Your task to perform on an android device: Open CNN.com Image 0: 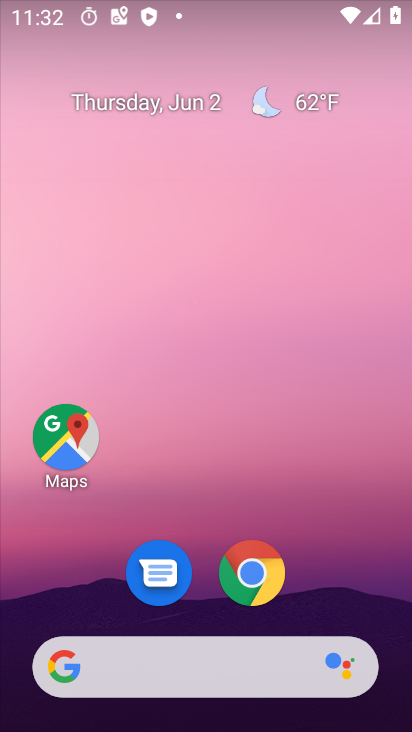
Step 0: drag from (339, 655) to (411, 447)
Your task to perform on an android device: Open CNN.com Image 1: 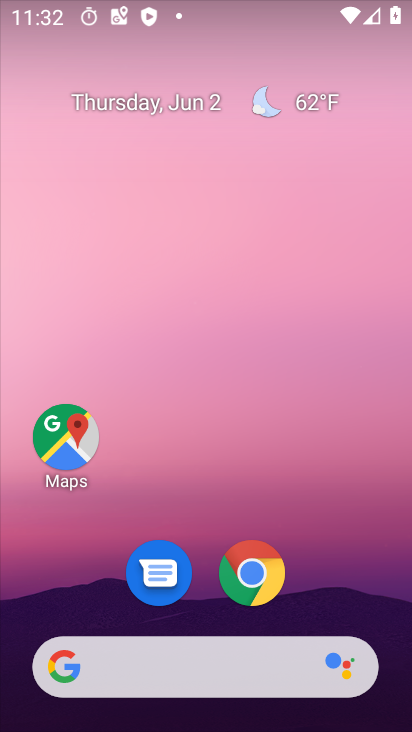
Step 1: drag from (200, 722) to (223, 99)
Your task to perform on an android device: Open CNN.com Image 2: 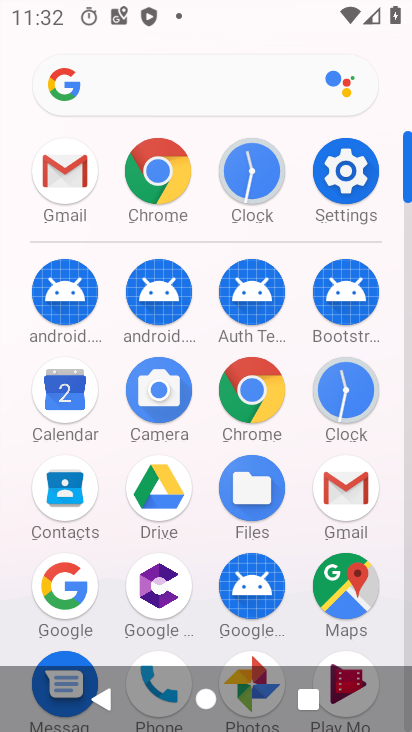
Step 2: click (268, 369)
Your task to perform on an android device: Open CNN.com Image 3: 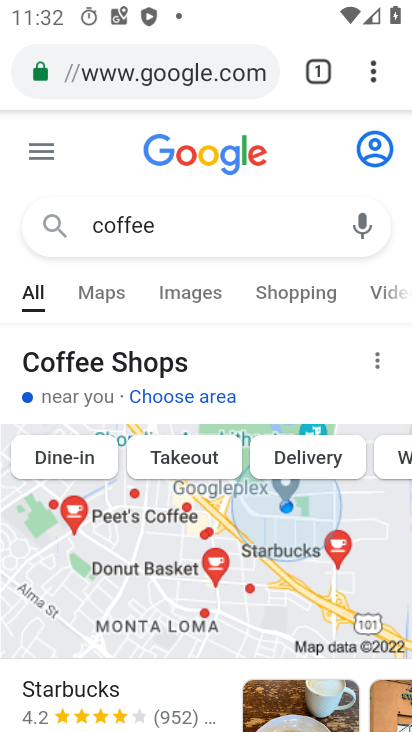
Step 3: click (261, 69)
Your task to perform on an android device: Open CNN.com Image 4: 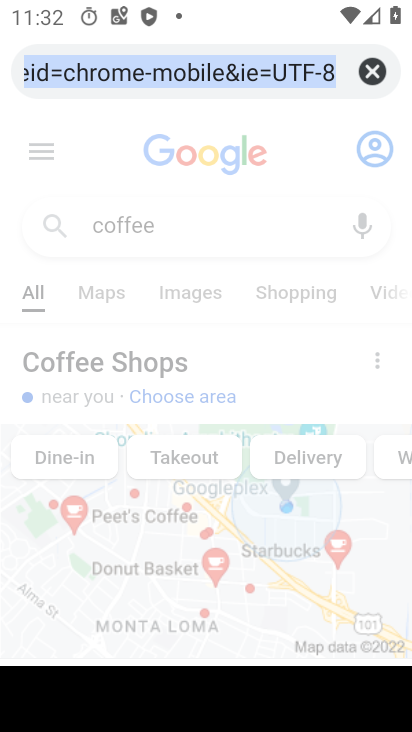
Step 4: type "cnn.com"
Your task to perform on an android device: Open CNN.com Image 5: 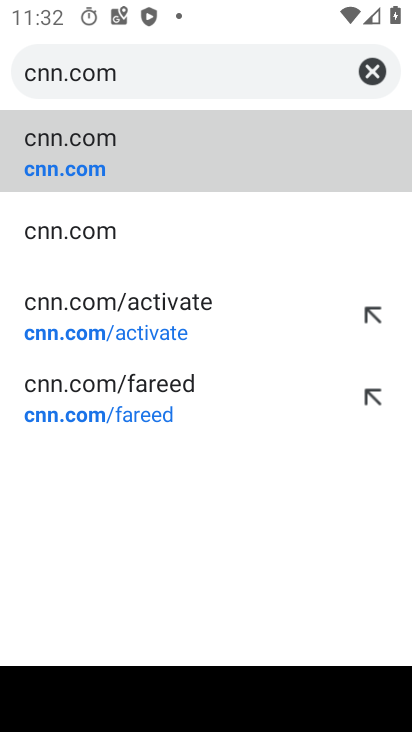
Step 5: click (90, 165)
Your task to perform on an android device: Open CNN.com Image 6: 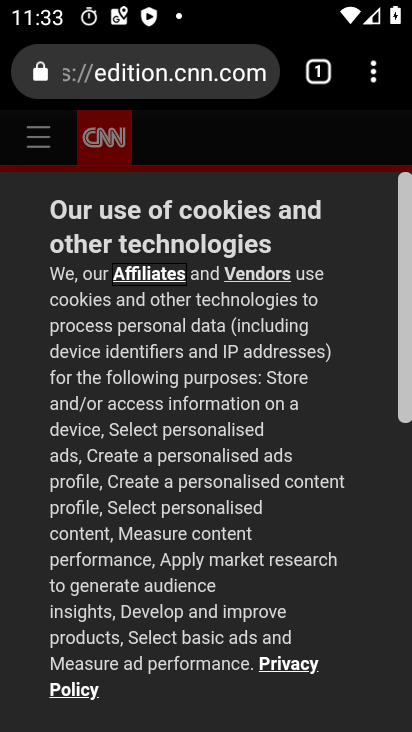
Step 6: task complete